Your task to perform on an android device: change alarm snooze length Image 0: 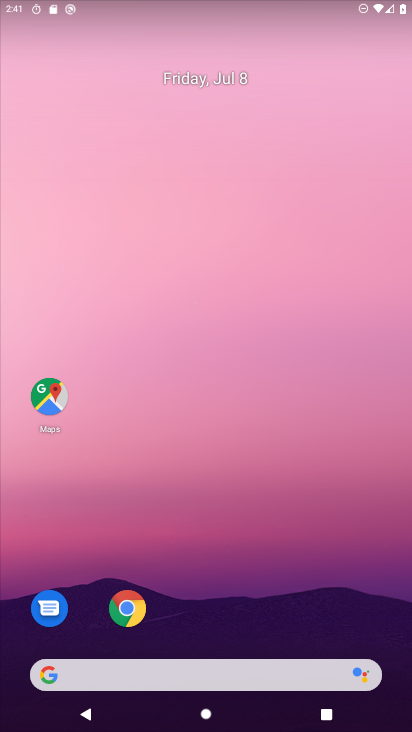
Step 0: drag from (227, 721) to (194, 95)
Your task to perform on an android device: change alarm snooze length Image 1: 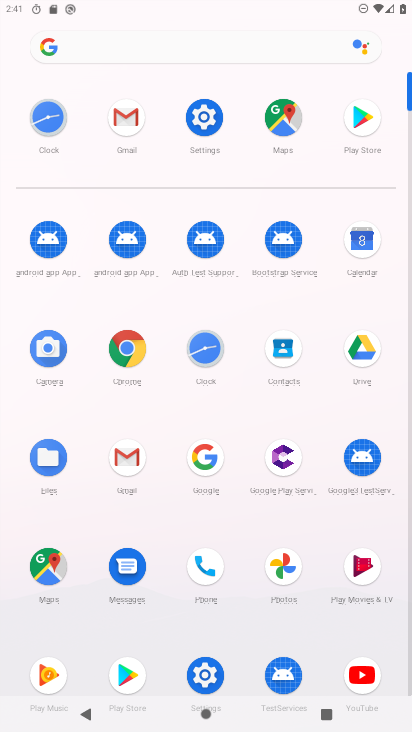
Step 1: click (201, 350)
Your task to perform on an android device: change alarm snooze length Image 2: 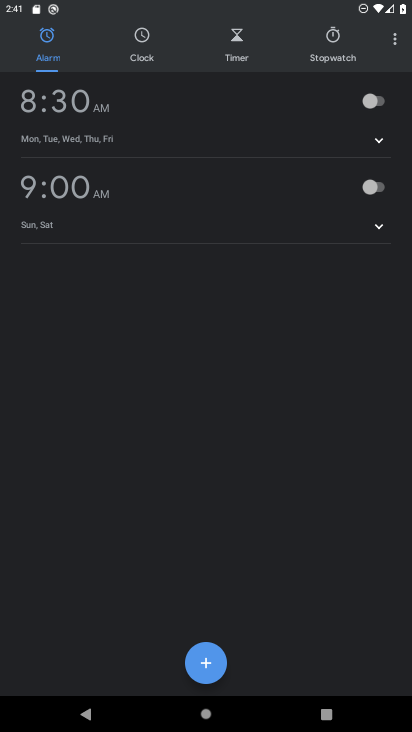
Step 2: click (398, 41)
Your task to perform on an android device: change alarm snooze length Image 3: 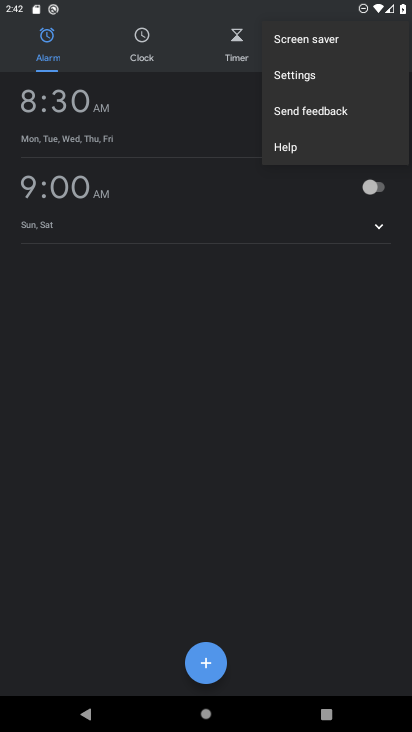
Step 3: click (295, 77)
Your task to perform on an android device: change alarm snooze length Image 4: 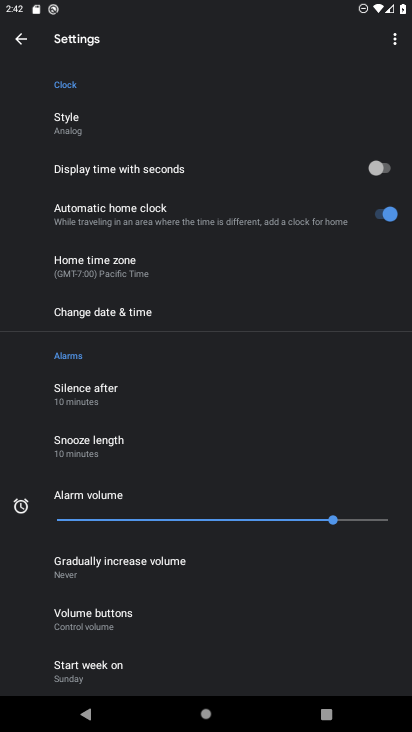
Step 4: click (93, 436)
Your task to perform on an android device: change alarm snooze length Image 5: 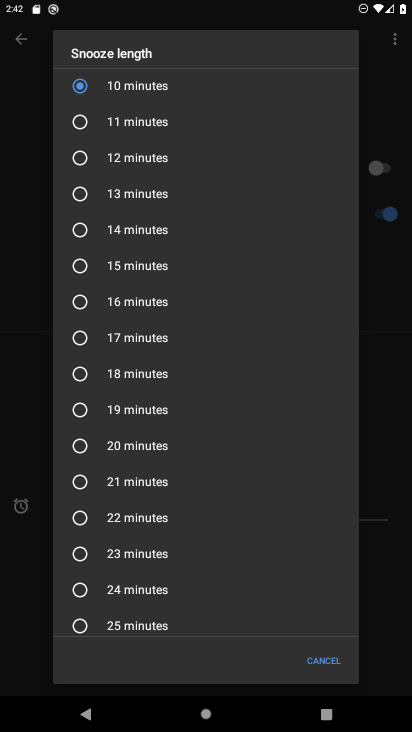
Step 5: click (85, 447)
Your task to perform on an android device: change alarm snooze length Image 6: 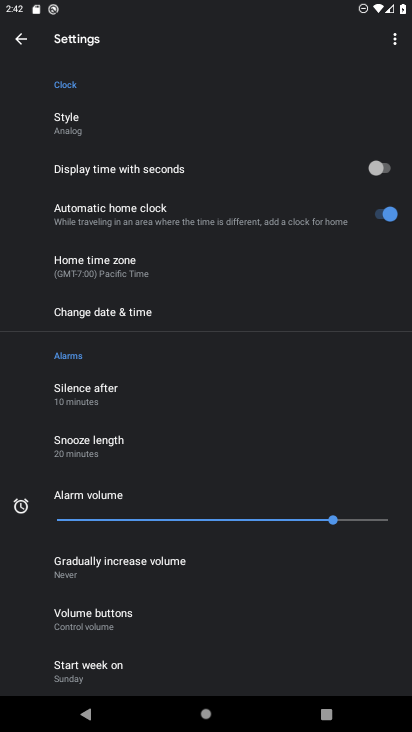
Step 6: task complete